Your task to perform on an android device: Search for Italian restaurants on Maps Image 0: 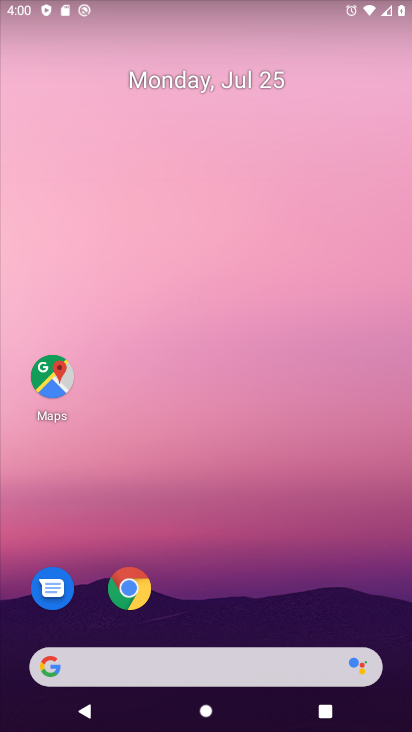
Step 0: drag from (235, 691) to (229, 72)
Your task to perform on an android device: Search for Italian restaurants on Maps Image 1: 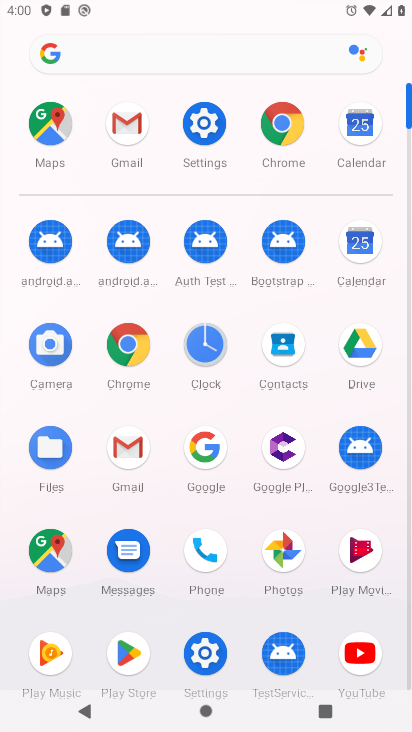
Step 1: click (43, 544)
Your task to perform on an android device: Search for Italian restaurants on Maps Image 2: 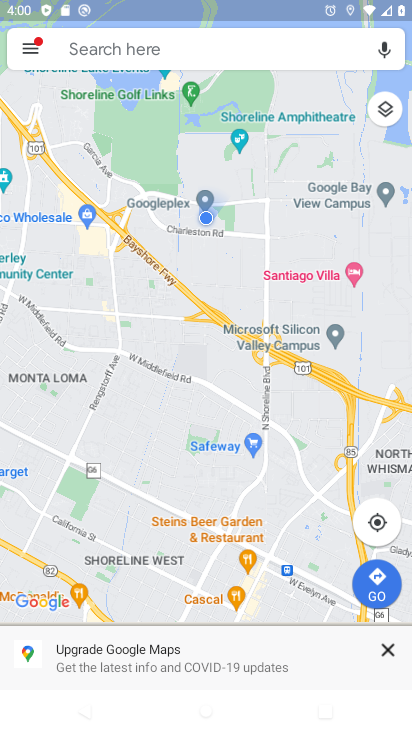
Step 2: click (167, 52)
Your task to perform on an android device: Search for Italian restaurants on Maps Image 3: 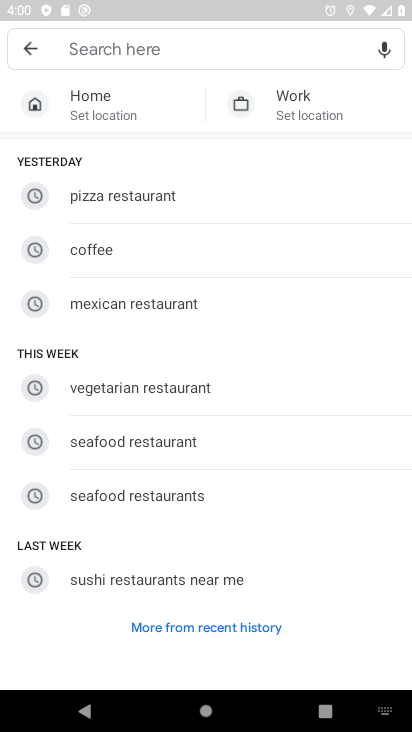
Step 3: type "Italian restasurants"
Your task to perform on an android device: Search for Italian restaurants on Maps Image 4: 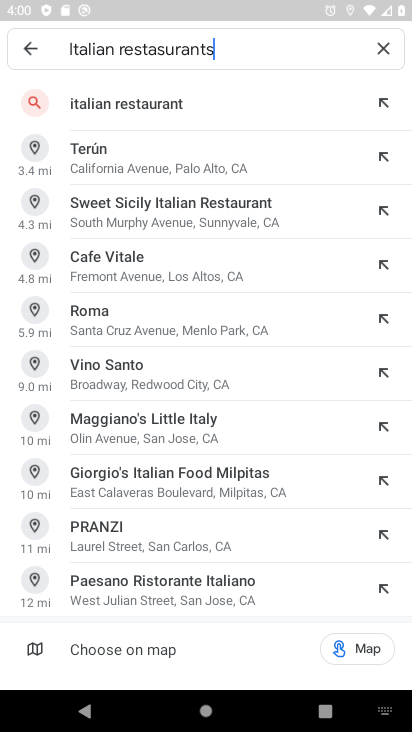
Step 4: click (130, 105)
Your task to perform on an android device: Search for Italian restaurants on Maps Image 5: 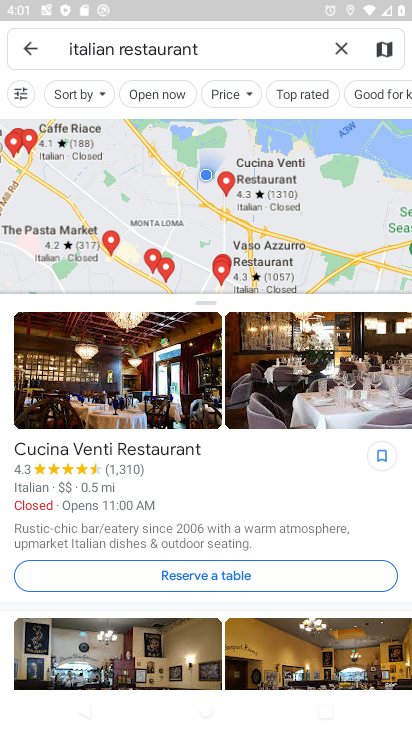
Step 5: task complete